Your task to perform on an android device: Open calendar and show me the third week of next month Image 0: 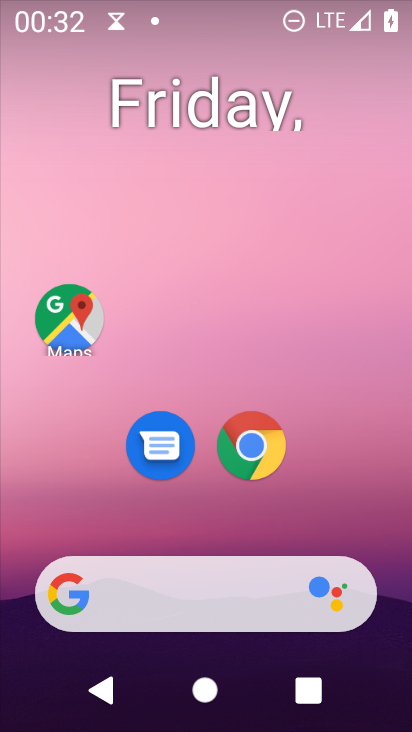
Step 0: drag from (239, 724) to (223, 29)
Your task to perform on an android device: Open calendar and show me the third week of next month Image 1: 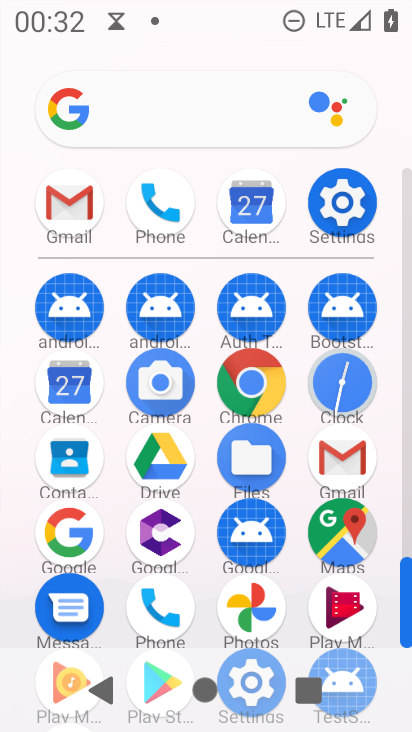
Step 1: click (62, 392)
Your task to perform on an android device: Open calendar and show me the third week of next month Image 2: 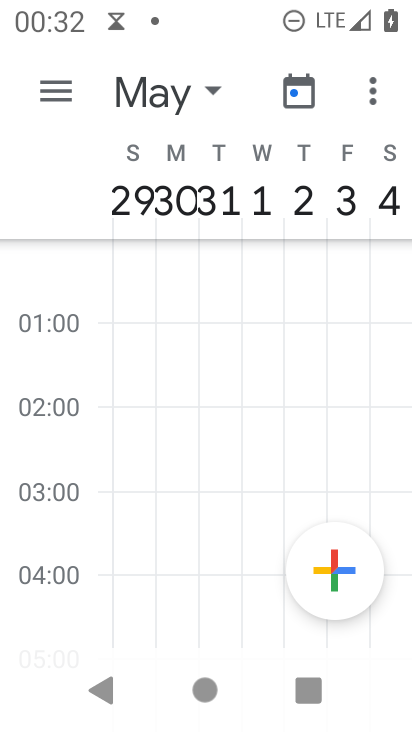
Step 2: click (213, 89)
Your task to perform on an android device: Open calendar and show me the third week of next month Image 3: 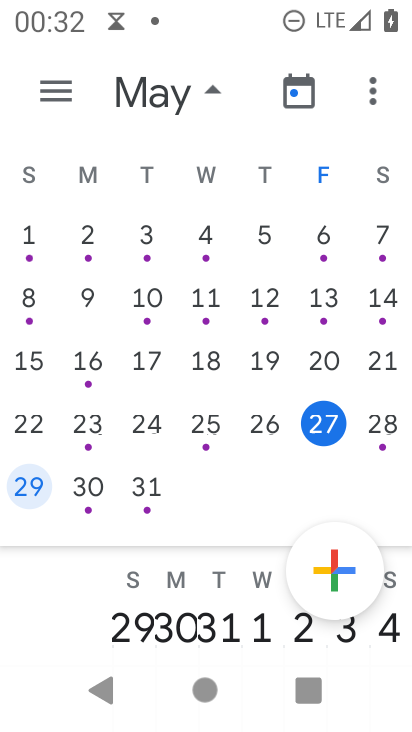
Step 3: drag from (367, 359) to (14, 318)
Your task to perform on an android device: Open calendar and show me the third week of next month Image 4: 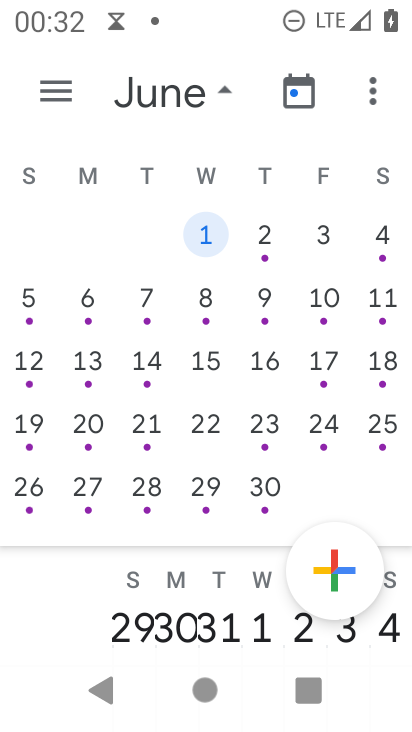
Step 4: click (85, 416)
Your task to perform on an android device: Open calendar and show me the third week of next month Image 5: 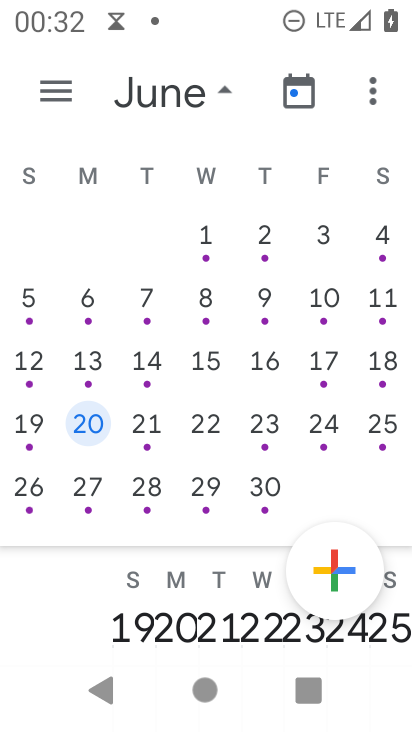
Step 5: click (51, 84)
Your task to perform on an android device: Open calendar and show me the third week of next month Image 6: 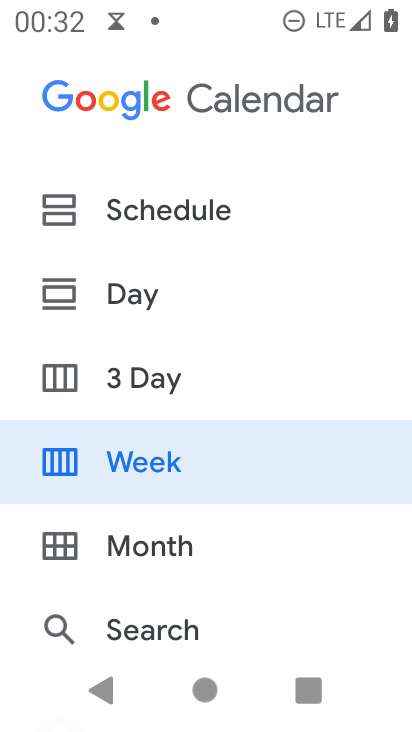
Step 6: click (138, 452)
Your task to perform on an android device: Open calendar and show me the third week of next month Image 7: 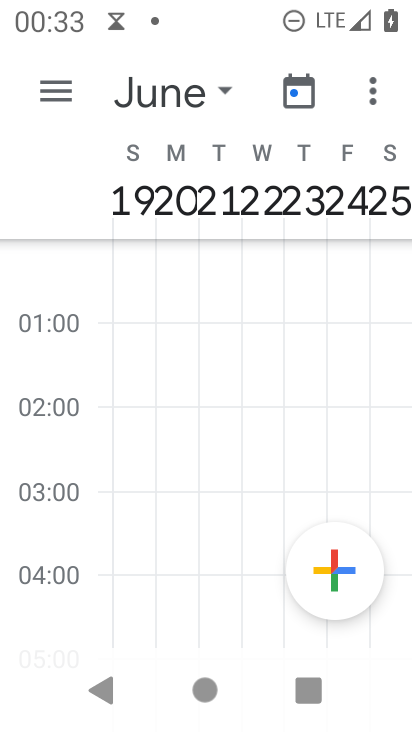
Step 7: task complete